Your task to perform on an android device: Open the Play Movies app and select the watchlist tab. Image 0: 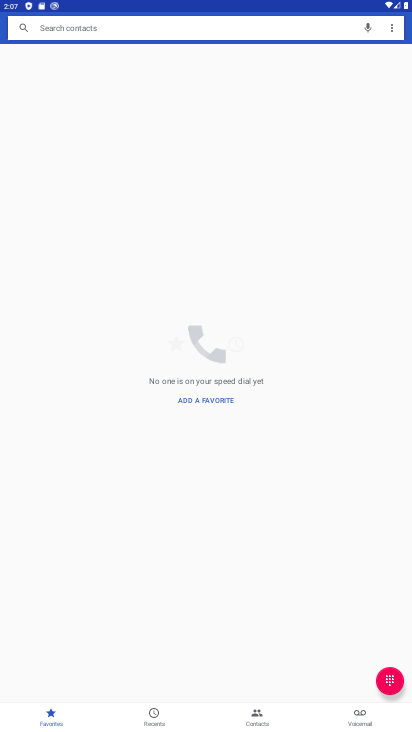
Step 0: press home button
Your task to perform on an android device: Open the Play Movies app and select the watchlist tab. Image 1: 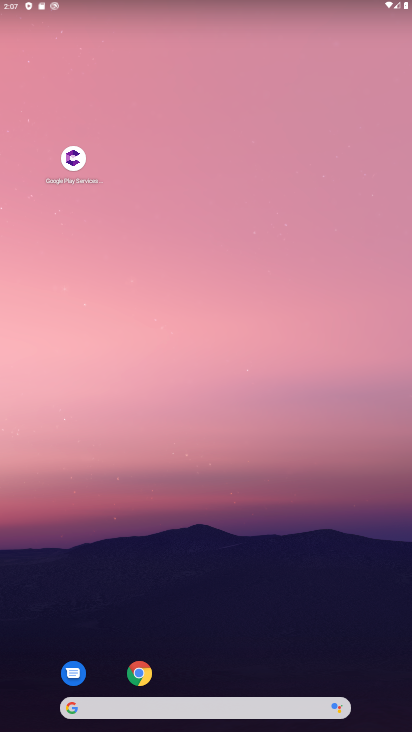
Step 1: click (71, 164)
Your task to perform on an android device: Open the Play Movies app and select the watchlist tab. Image 2: 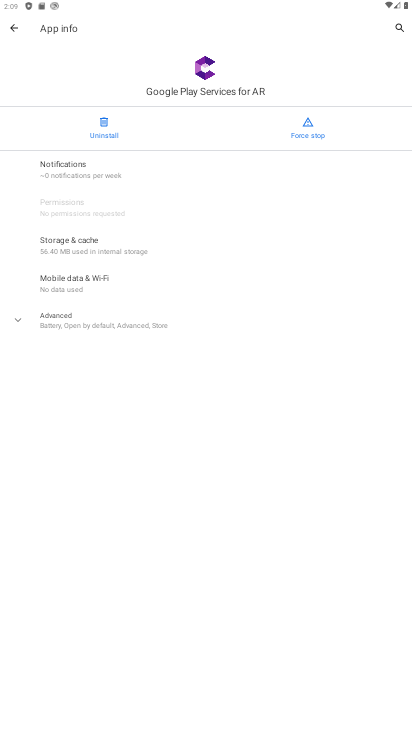
Step 2: press home button
Your task to perform on an android device: Open the Play Movies app and select the watchlist tab. Image 3: 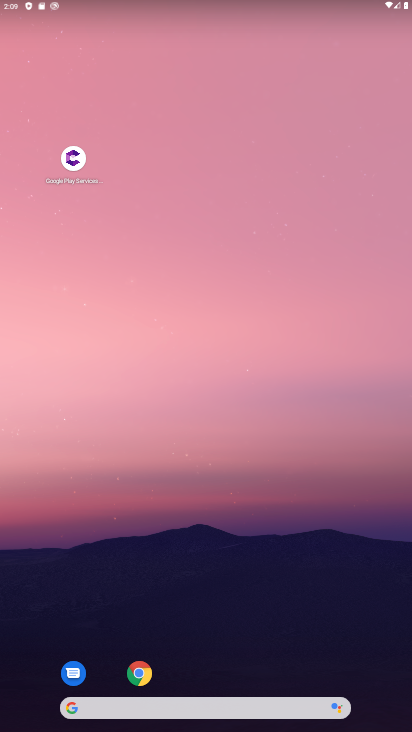
Step 3: drag from (202, 613) to (185, 213)
Your task to perform on an android device: Open the Play Movies app and select the watchlist tab. Image 4: 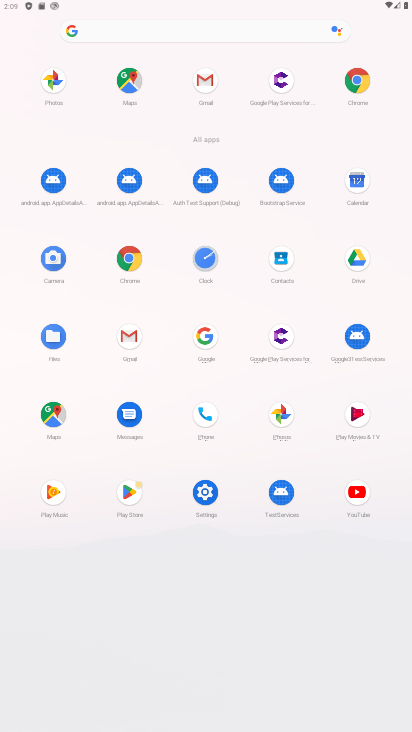
Step 4: click (355, 414)
Your task to perform on an android device: Open the Play Movies app and select the watchlist tab. Image 5: 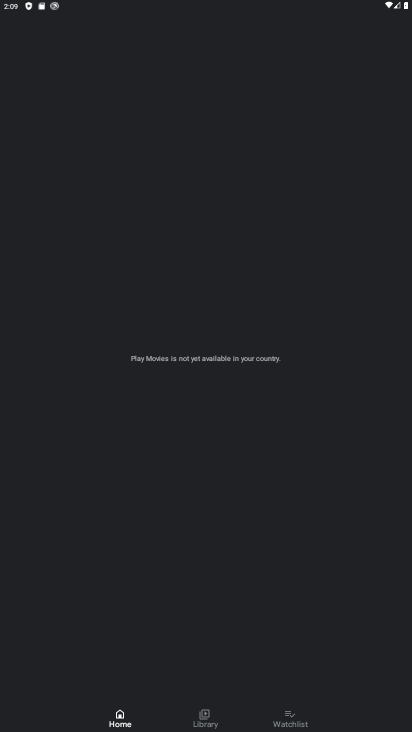
Step 5: click (296, 720)
Your task to perform on an android device: Open the Play Movies app and select the watchlist tab. Image 6: 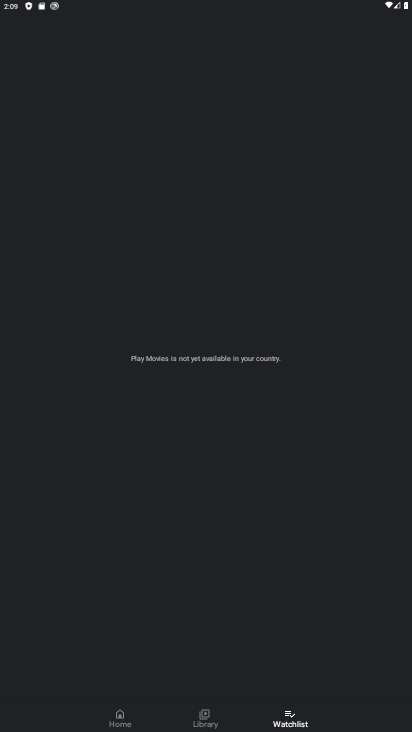
Step 6: task complete